Your task to perform on an android device: Open battery settings Image 0: 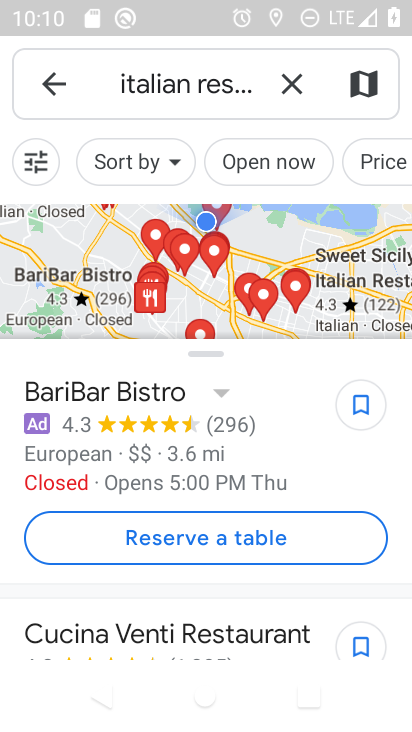
Step 0: press home button
Your task to perform on an android device: Open battery settings Image 1: 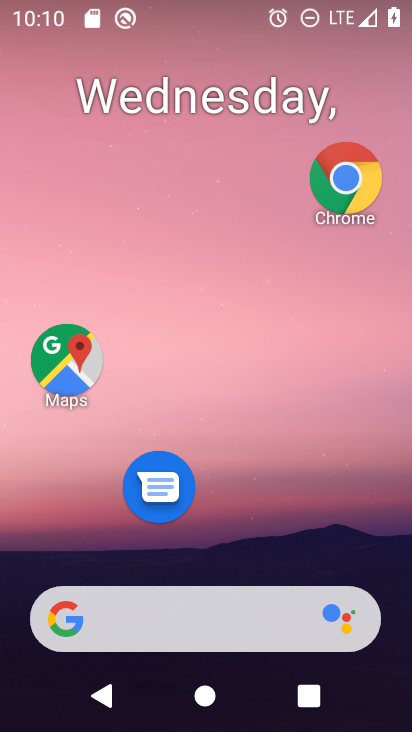
Step 1: drag from (241, 586) to (244, 143)
Your task to perform on an android device: Open battery settings Image 2: 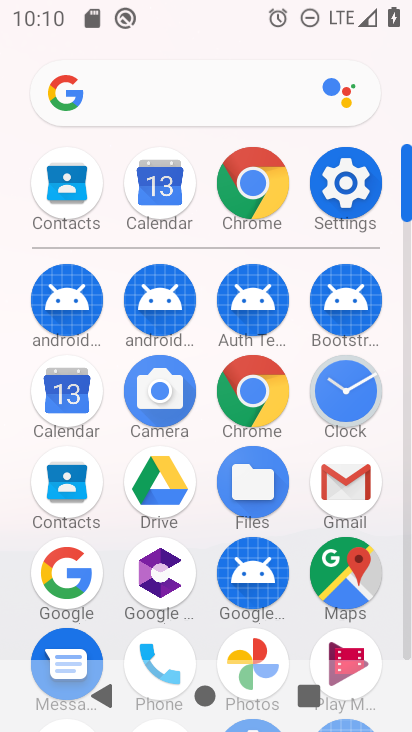
Step 2: click (349, 213)
Your task to perform on an android device: Open battery settings Image 3: 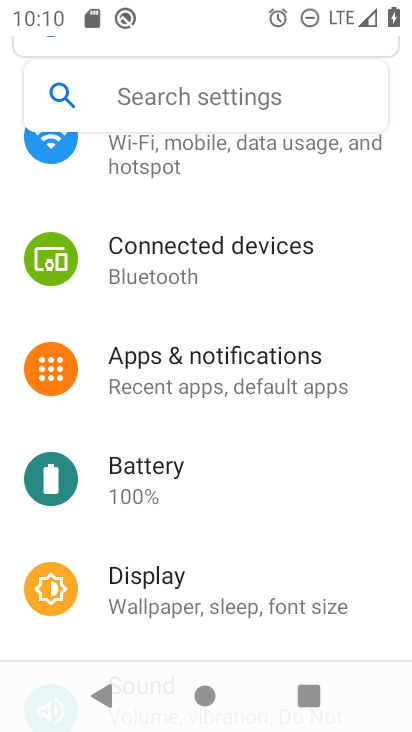
Step 3: click (203, 487)
Your task to perform on an android device: Open battery settings Image 4: 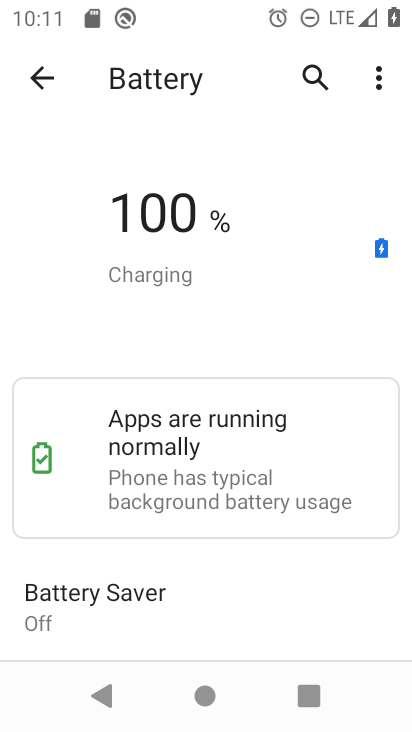
Step 4: task complete